Your task to perform on an android device: Open CNN.com Image 0: 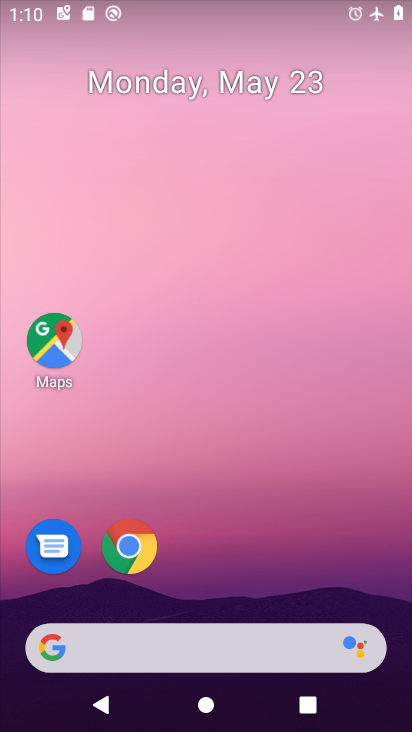
Step 0: drag from (299, 614) to (327, 195)
Your task to perform on an android device: Open CNN.com Image 1: 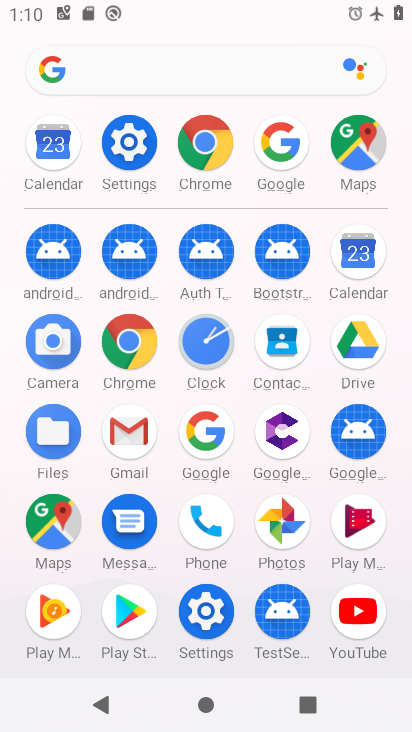
Step 1: click (137, 140)
Your task to perform on an android device: Open CNN.com Image 2: 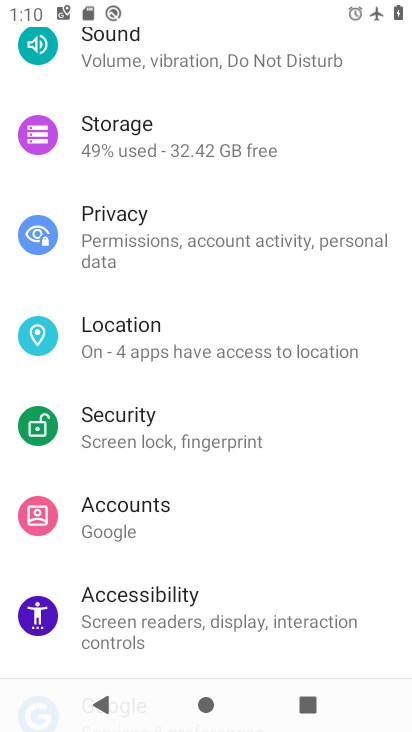
Step 2: drag from (136, 206) to (129, 350)
Your task to perform on an android device: Open CNN.com Image 3: 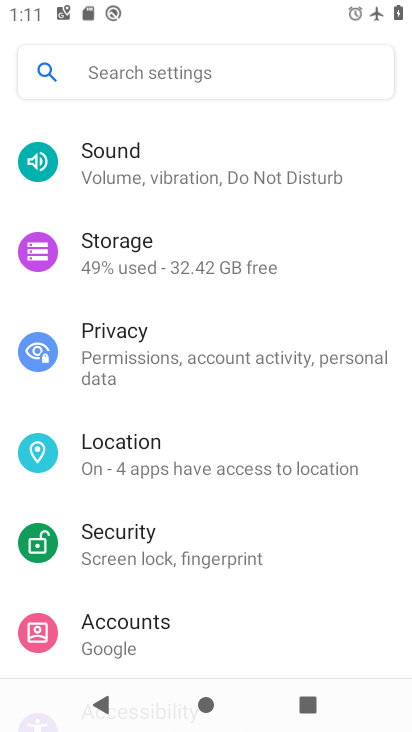
Step 3: drag from (137, 196) to (149, 484)
Your task to perform on an android device: Open CNN.com Image 4: 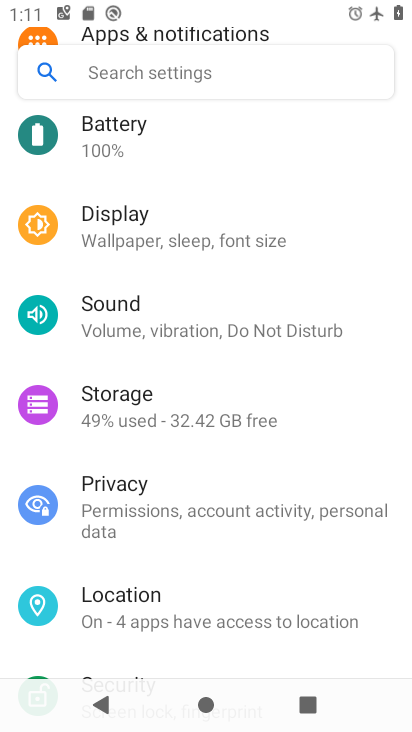
Step 4: drag from (250, 164) to (252, 424)
Your task to perform on an android device: Open CNN.com Image 5: 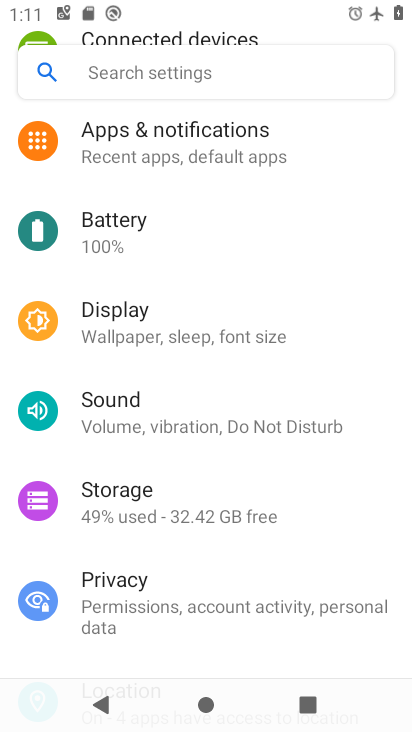
Step 5: drag from (260, 157) to (218, 656)
Your task to perform on an android device: Open CNN.com Image 6: 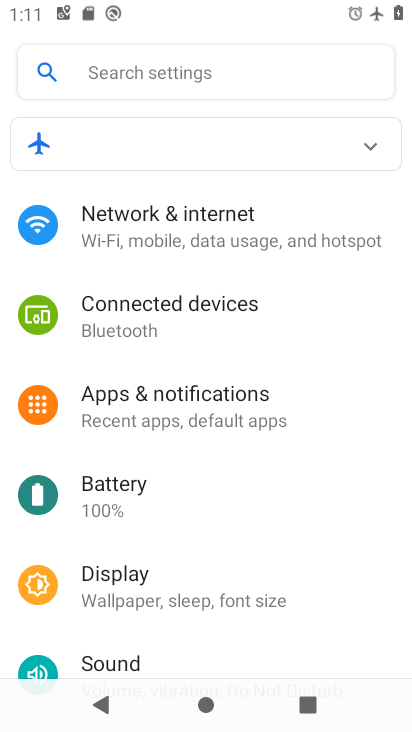
Step 6: click (238, 234)
Your task to perform on an android device: Open CNN.com Image 7: 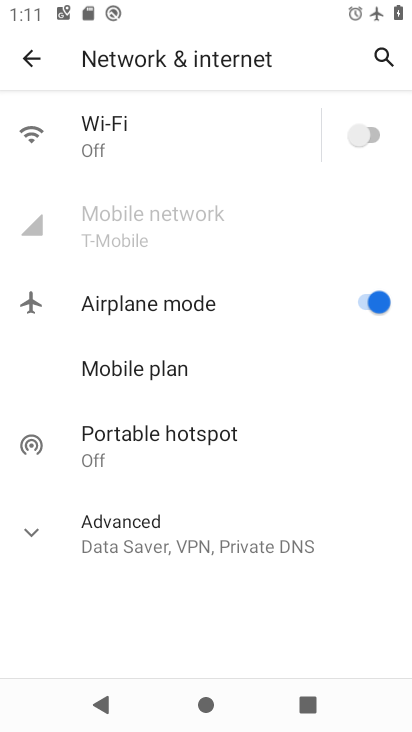
Step 7: click (366, 304)
Your task to perform on an android device: Open CNN.com Image 8: 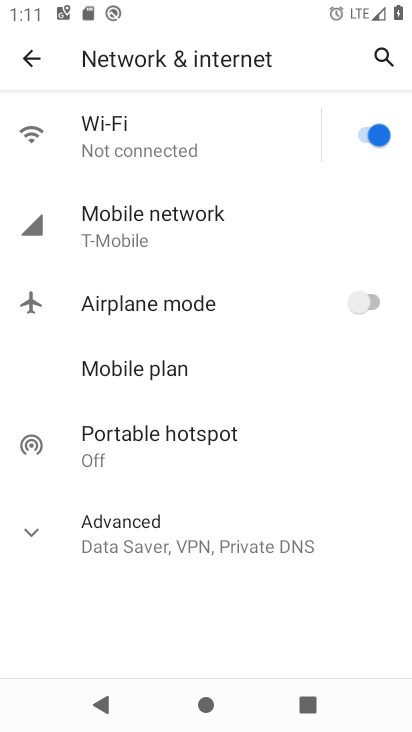
Step 8: task complete